Your task to perform on an android device: turn on airplane mode Image 0: 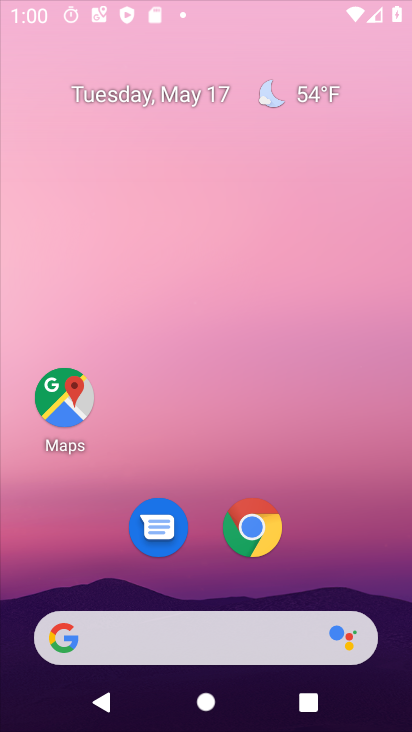
Step 0: press home button
Your task to perform on an android device: turn on airplane mode Image 1: 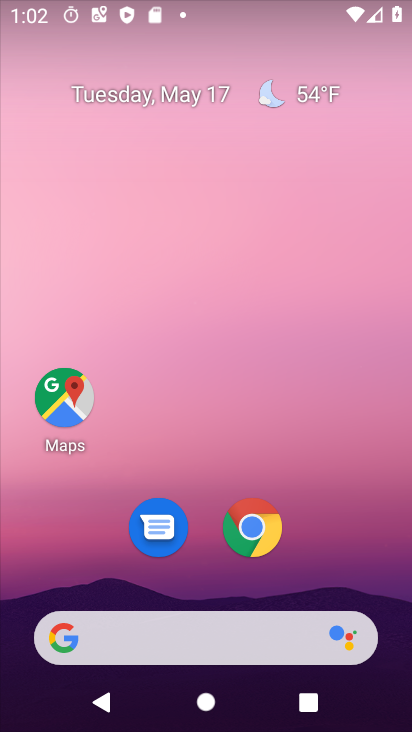
Step 1: drag from (263, 669) to (347, 62)
Your task to perform on an android device: turn on airplane mode Image 2: 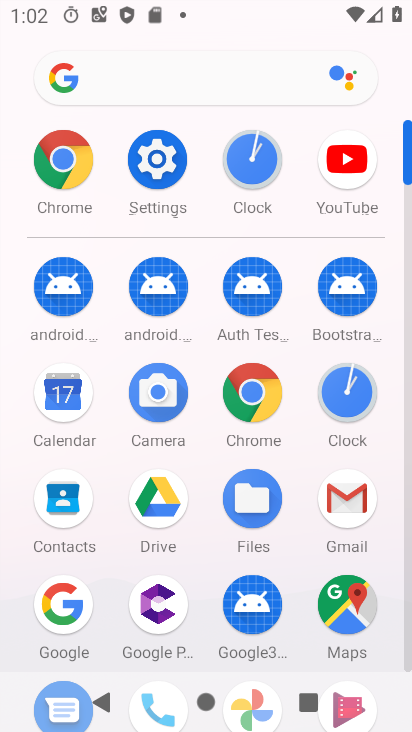
Step 2: click (166, 187)
Your task to perform on an android device: turn on airplane mode Image 3: 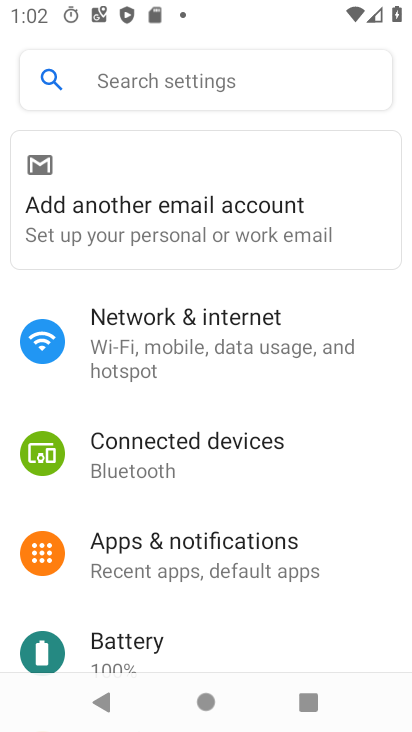
Step 3: click (189, 319)
Your task to perform on an android device: turn on airplane mode Image 4: 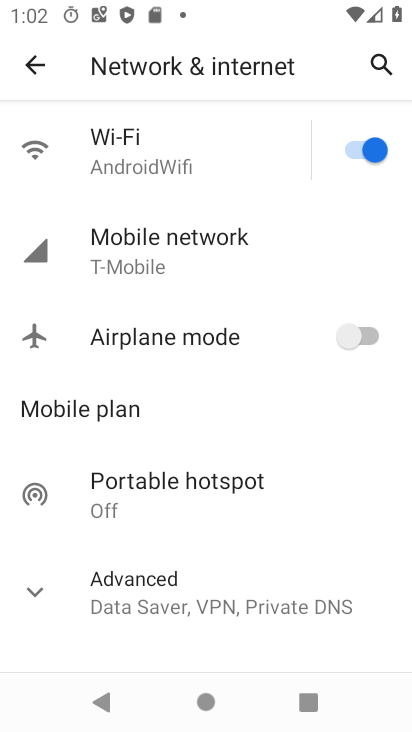
Step 4: click (135, 356)
Your task to perform on an android device: turn on airplane mode Image 5: 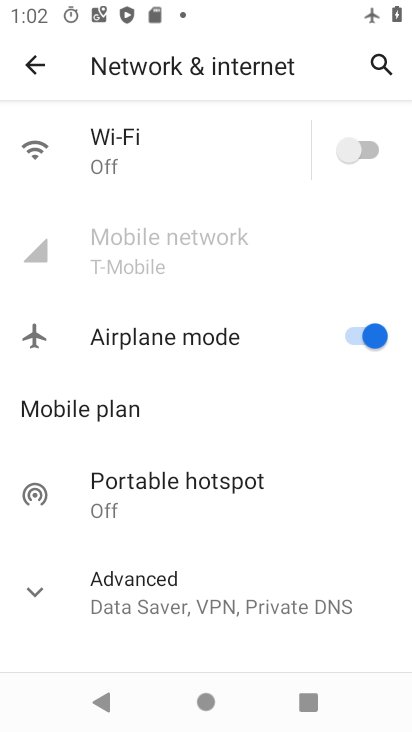
Step 5: task complete